Your task to perform on an android device: Show me popular games on the Play Store Image 0: 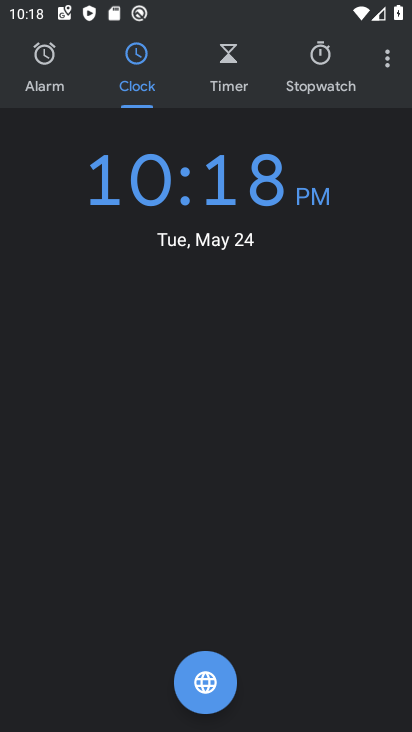
Step 0: press home button
Your task to perform on an android device: Show me popular games on the Play Store Image 1: 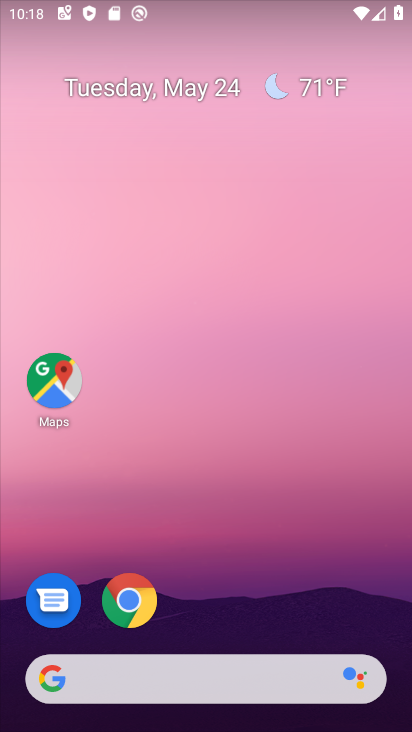
Step 1: drag from (199, 627) to (145, 86)
Your task to perform on an android device: Show me popular games on the Play Store Image 2: 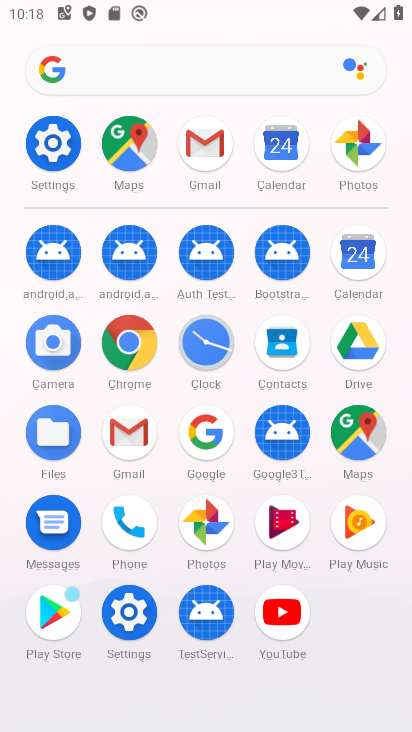
Step 2: click (49, 631)
Your task to perform on an android device: Show me popular games on the Play Store Image 3: 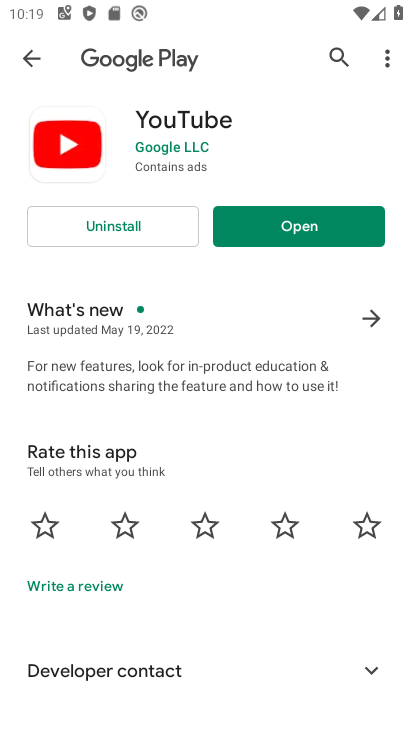
Step 3: click (36, 65)
Your task to perform on an android device: Show me popular games on the Play Store Image 4: 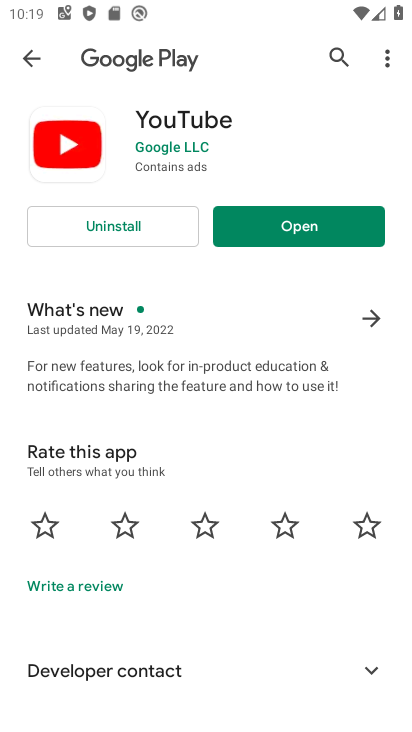
Step 4: click (18, 74)
Your task to perform on an android device: Show me popular games on the Play Store Image 5: 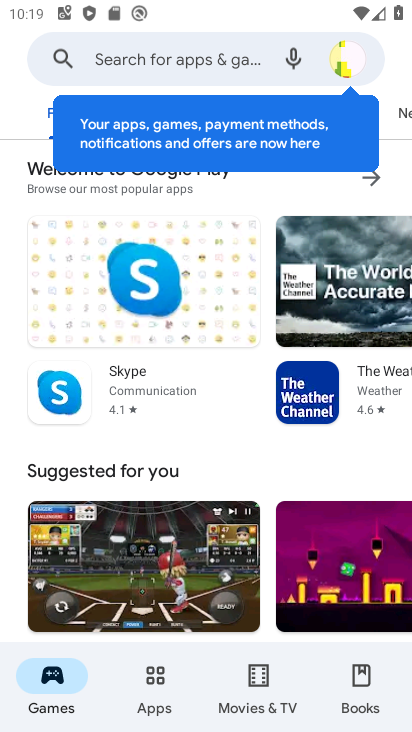
Step 5: drag from (314, 548) to (296, 462)
Your task to perform on an android device: Show me popular games on the Play Store Image 6: 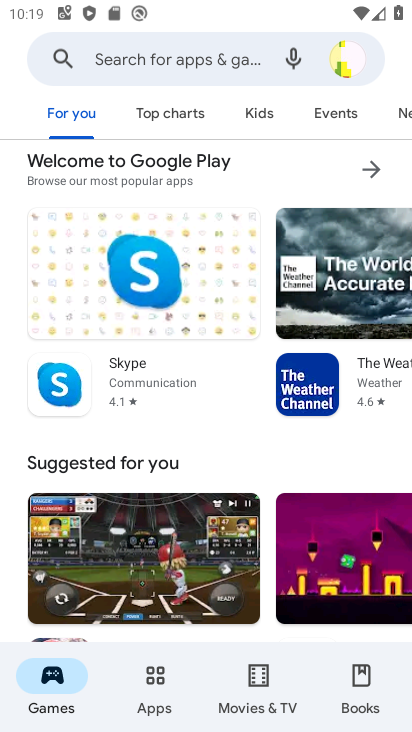
Step 6: press home button
Your task to perform on an android device: Show me popular games on the Play Store Image 7: 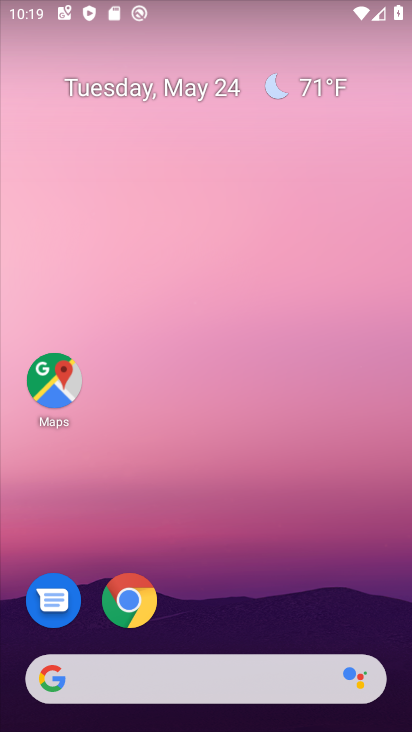
Step 7: drag from (196, 612) to (185, 194)
Your task to perform on an android device: Show me popular games on the Play Store Image 8: 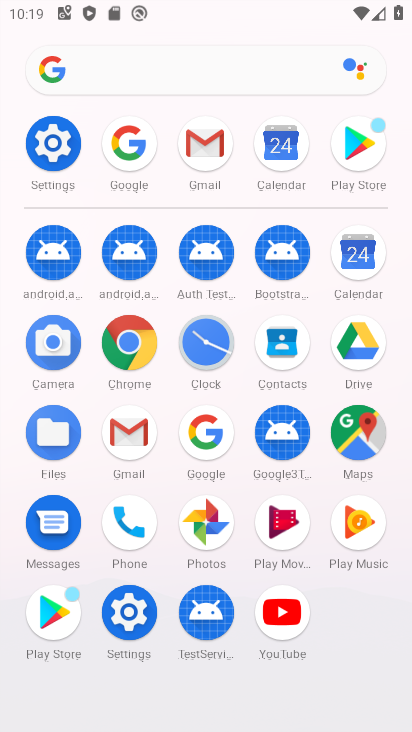
Step 8: click (82, 613)
Your task to perform on an android device: Show me popular games on the Play Store Image 9: 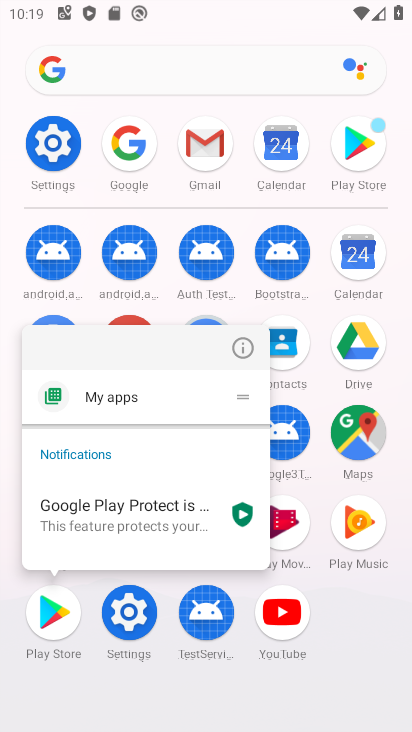
Step 9: click (48, 631)
Your task to perform on an android device: Show me popular games on the Play Store Image 10: 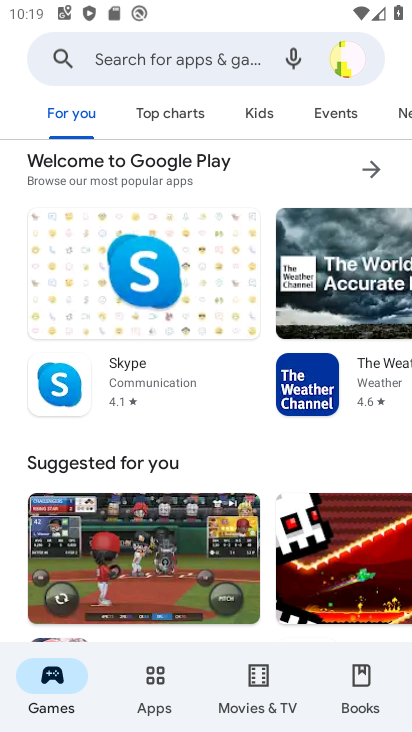
Step 10: task complete